Your task to perform on an android device: open app "ZOOM Cloud Meetings" (install if not already installed) and enter user name: "bauxite@icloud.com" and password: "dim" Image 0: 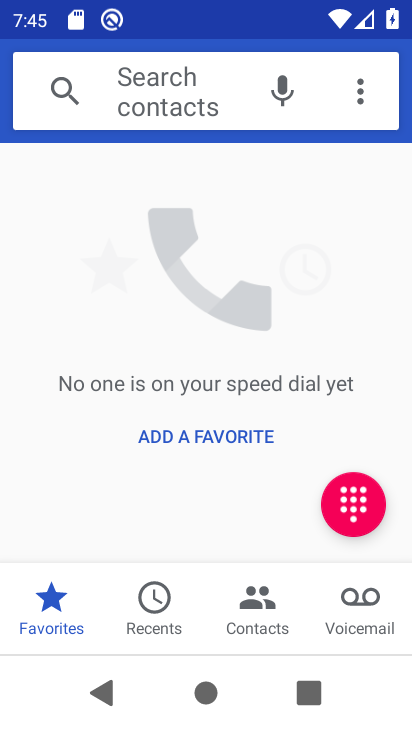
Step 0: press home button
Your task to perform on an android device: open app "ZOOM Cloud Meetings" (install if not already installed) and enter user name: "bauxite@icloud.com" and password: "dim" Image 1: 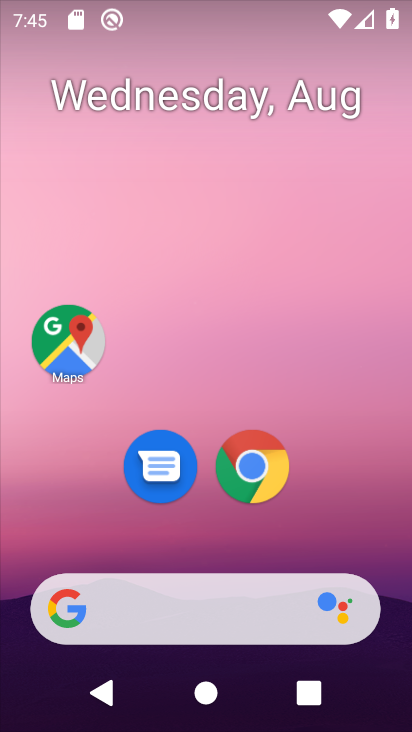
Step 1: drag from (191, 608) to (223, 74)
Your task to perform on an android device: open app "ZOOM Cloud Meetings" (install if not already installed) and enter user name: "bauxite@icloud.com" and password: "dim" Image 2: 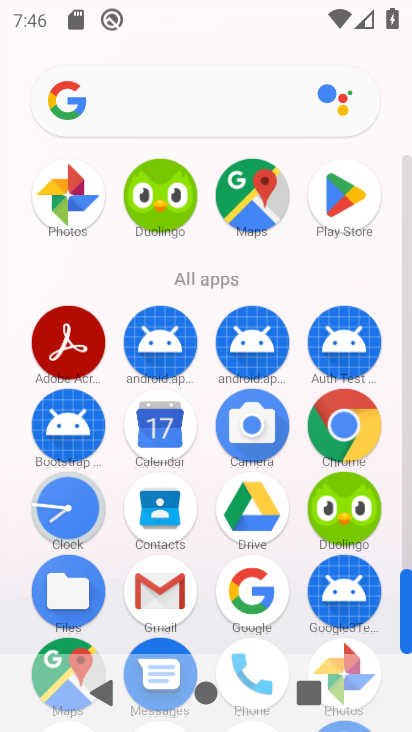
Step 2: click (343, 203)
Your task to perform on an android device: open app "ZOOM Cloud Meetings" (install if not already installed) and enter user name: "bauxite@icloud.com" and password: "dim" Image 3: 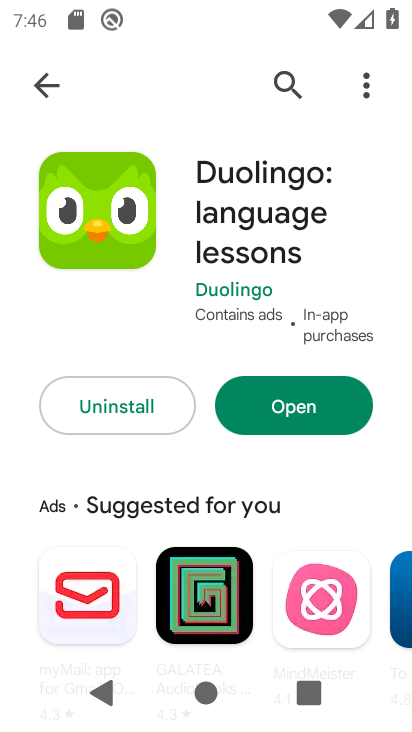
Step 3: press back button
Your task to perform on an android device: open app "ZOOM Cloud Meetings" (install if not already installed) and enter user name: "bauxite@icloud.com" and password: "dim" Image 4: 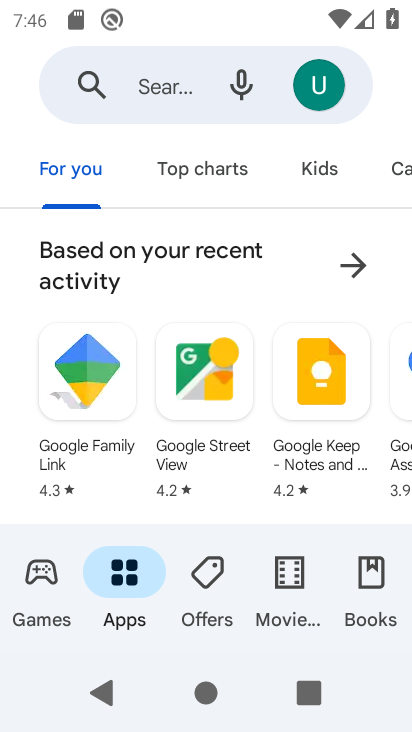
Step 4: click (179, 81)
Your task to perform on an android device: open app "ZOOM Cloud Meetings" (install if not already installed) and enter user name: "bauxite@icloud.com" and password: "dim" Image 5: 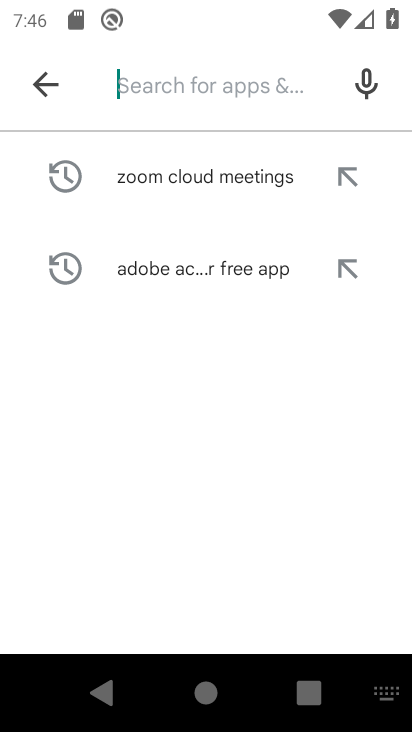
Step 5: click (164, 184)
Your task to perform on an android device: open app "ZOOM Cloud Meetings" (install if not already installed) and enter user name: "bauxite@icloud.com" and password: "dim" Image 6: 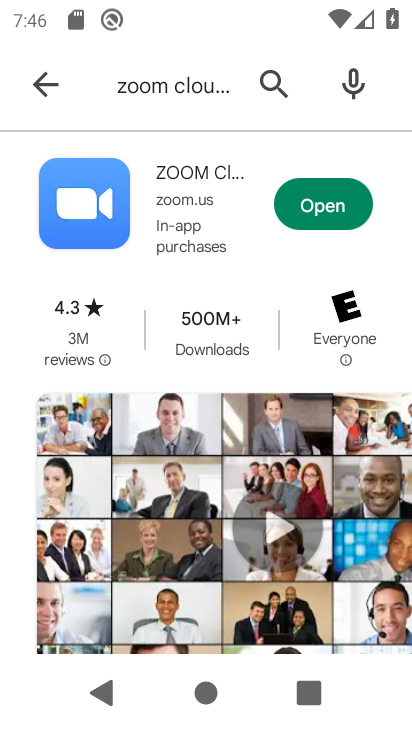
Step 6: click (339, 206)
Your task to perform on an android device: open app "ZOOM Cloud Meetings" (install if not already installed) and enter user name: "bauxite@icloud.com" and password: "dim" Image 7: 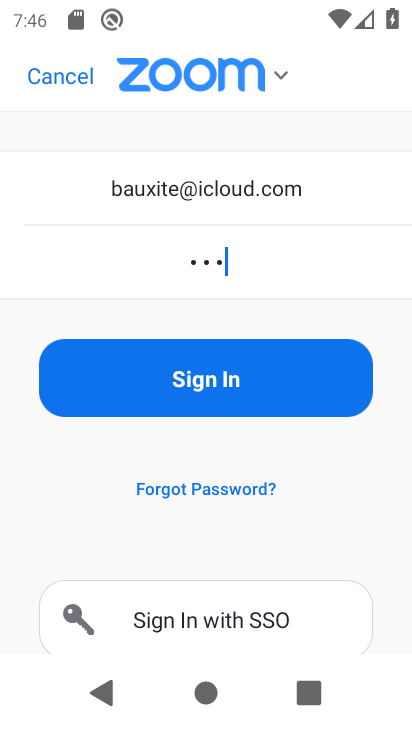
Step 7: task complete